Your task to perform on an android device: delete browsing data in the chrome app Image 0: 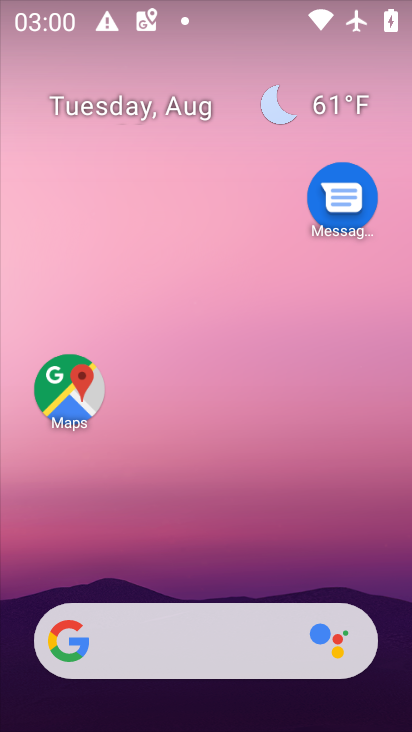
Step 0: drag from (232, 593) to (224, 51)
Your task to perform on an android device: delete browsing data in the chrome app Image 1: 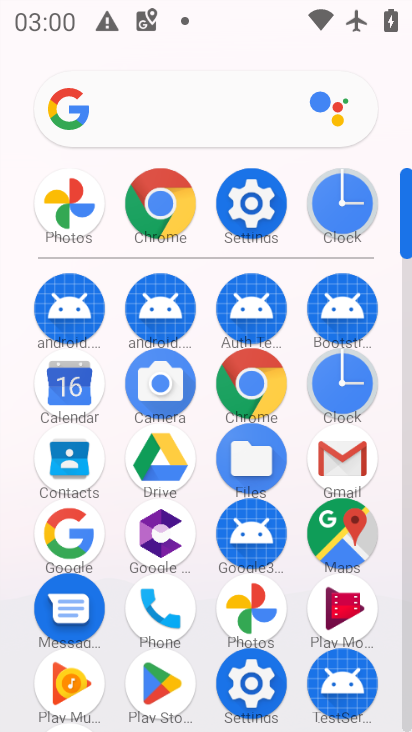
Step 1: click (163, 180)
Your task to perform on an android device: delete browsing data in the chrome app Image 2: 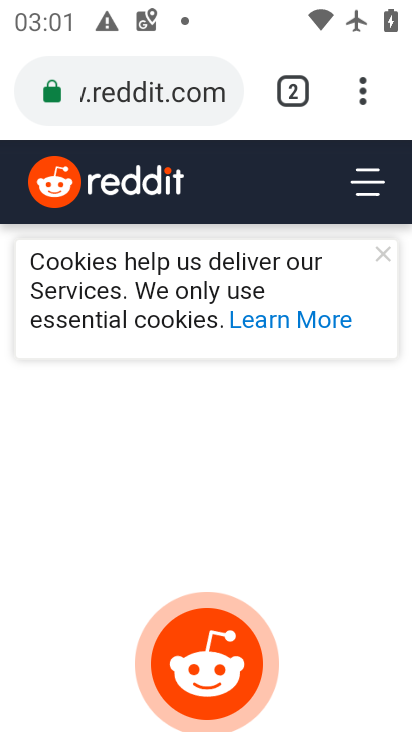
Step 2: click (376, 102)
Your task to perform on an android device: delete browsing data in the chrome app Image 3: 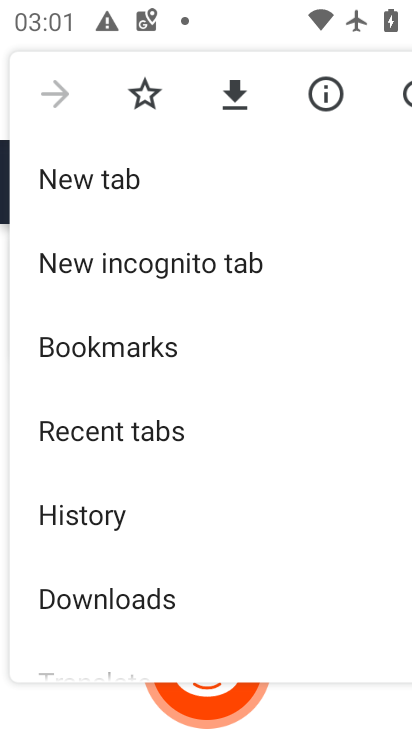
Step 3: drag from (187, 565) to (155, 214)
Your task to perform on an android device: delete browsing data in the chrome app Image 4: 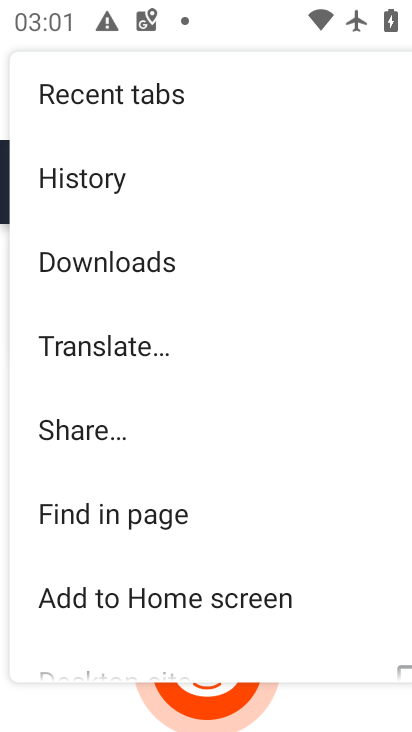
Step 4: drag from (168, 585) to (119, 161)
Your task to perform on an android device: delete browsing data in the chrome app Image 5: 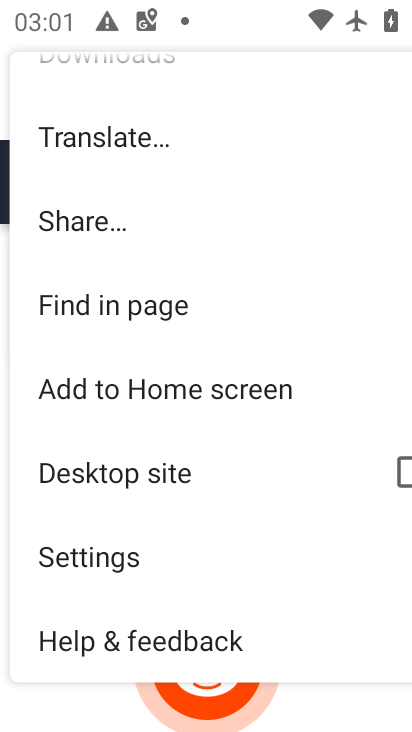
Step 5: click (134, 534)
Your task to perform on an android device: delete browsing data in the chrome app Image 6: 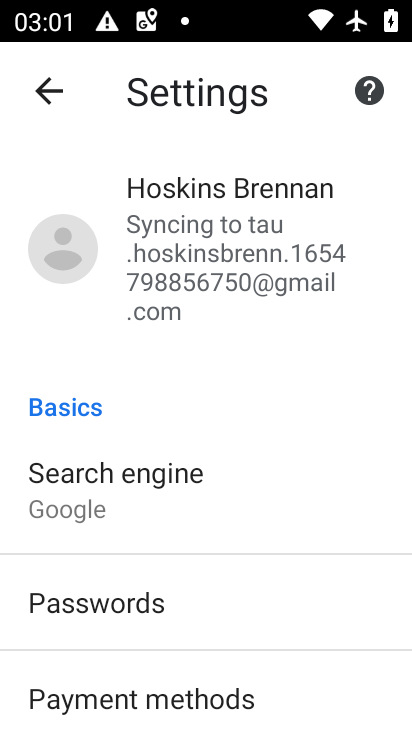
Step 6: task complete